Your task to perform on an android device: Open Youtube and go to the subscriptions tab Image 0: 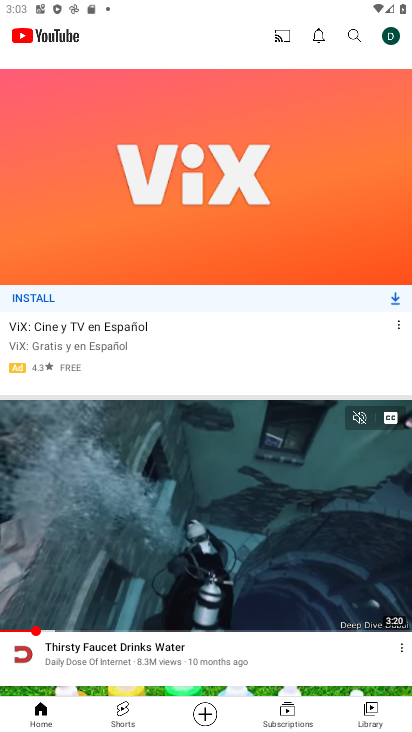
Step 0: click (289, 713)
Your task to perform on an android device: Open Youtube and go to the subscriptions tab Image 1: 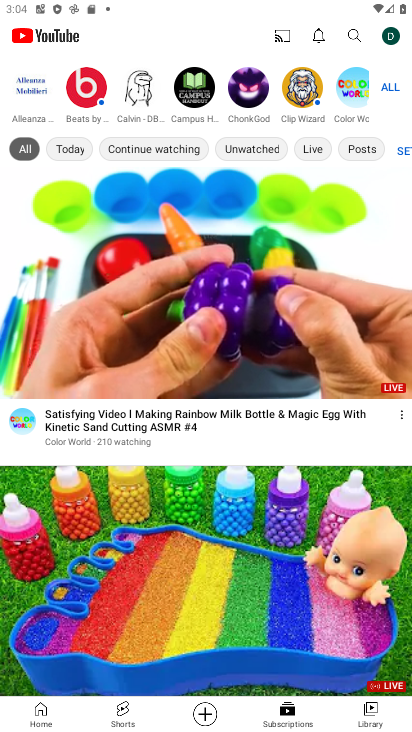
Step 1: task complete